Your task to perform on an android device: Open eBay Image 0: 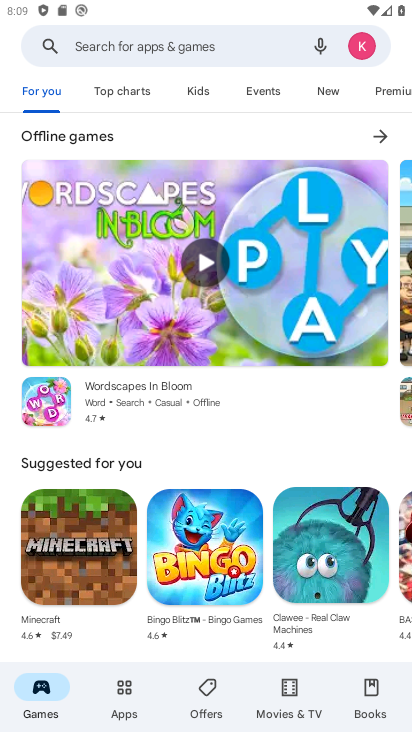
Step 0: press home button
Your task to perform on an android device: Open eBay Image 1: 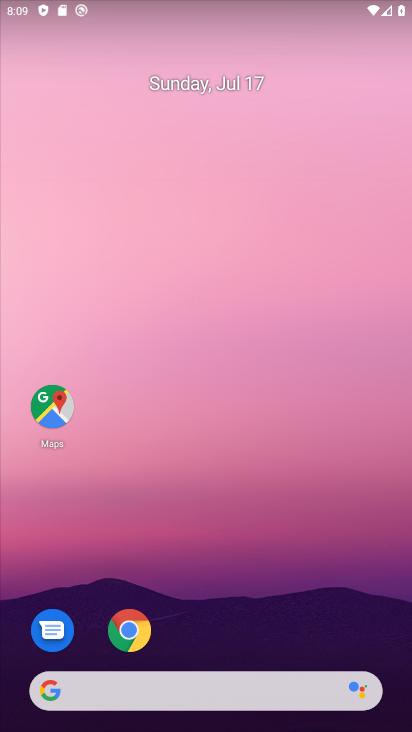
Step 1: drag from (360, 604) to (379, 162)
Your task to perform on an android device: Open eBay Image 2: 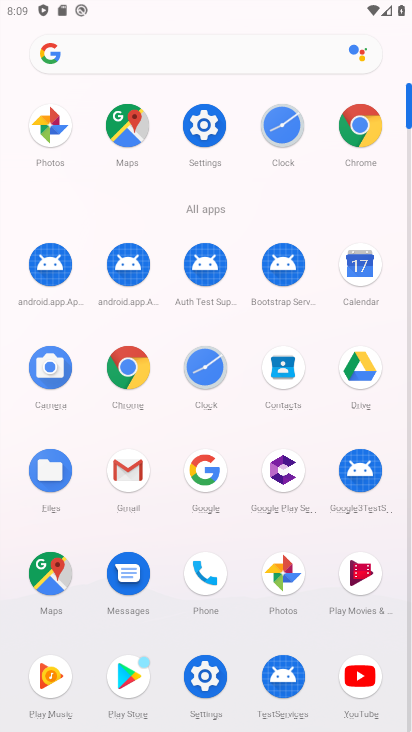
Step 2: click (137, 366)
Your task to perform on an android device: Open eBay Image 3: 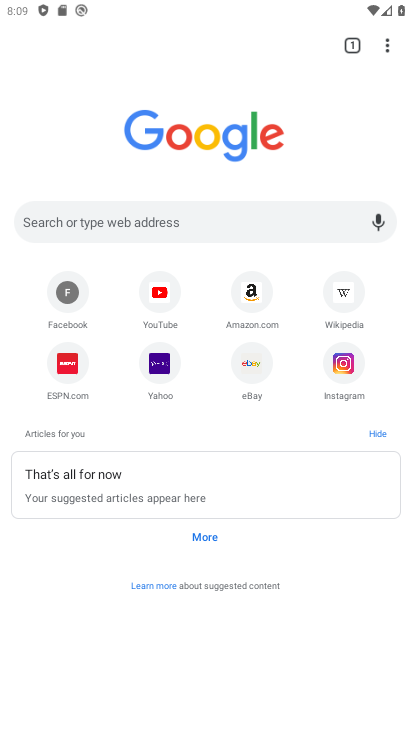
Step 3: click (294, 214)
Your task to perform on an android device: Open eBay Image 4: 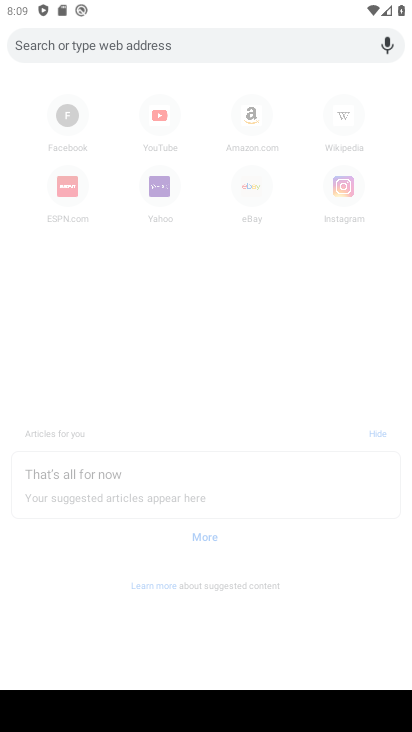
Step 4: type "ebay"
Your task to perform on an android device: Open eBay Image 5: 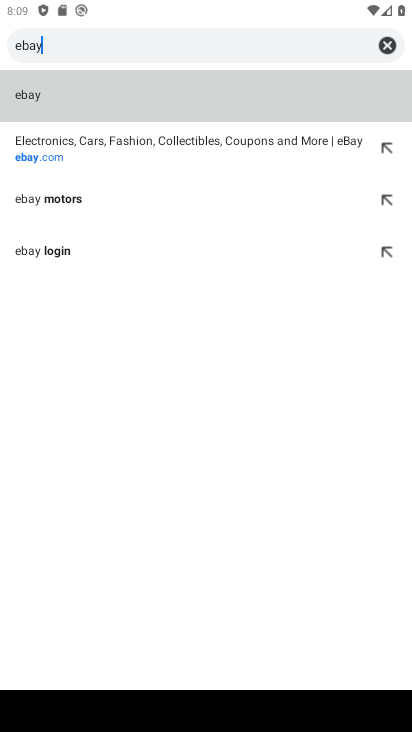
Step 5: click (127, 97)
Your task to perform on an android device: Open eBay Image 6: 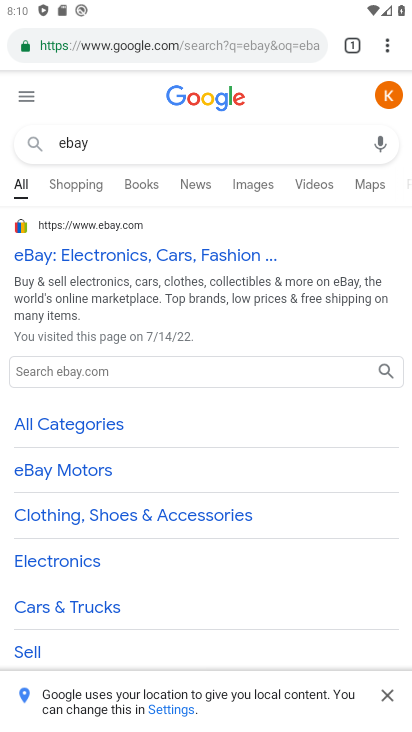
Step 6: task complete